Your task to perform on an android device: Search for a new mascara Image 0: 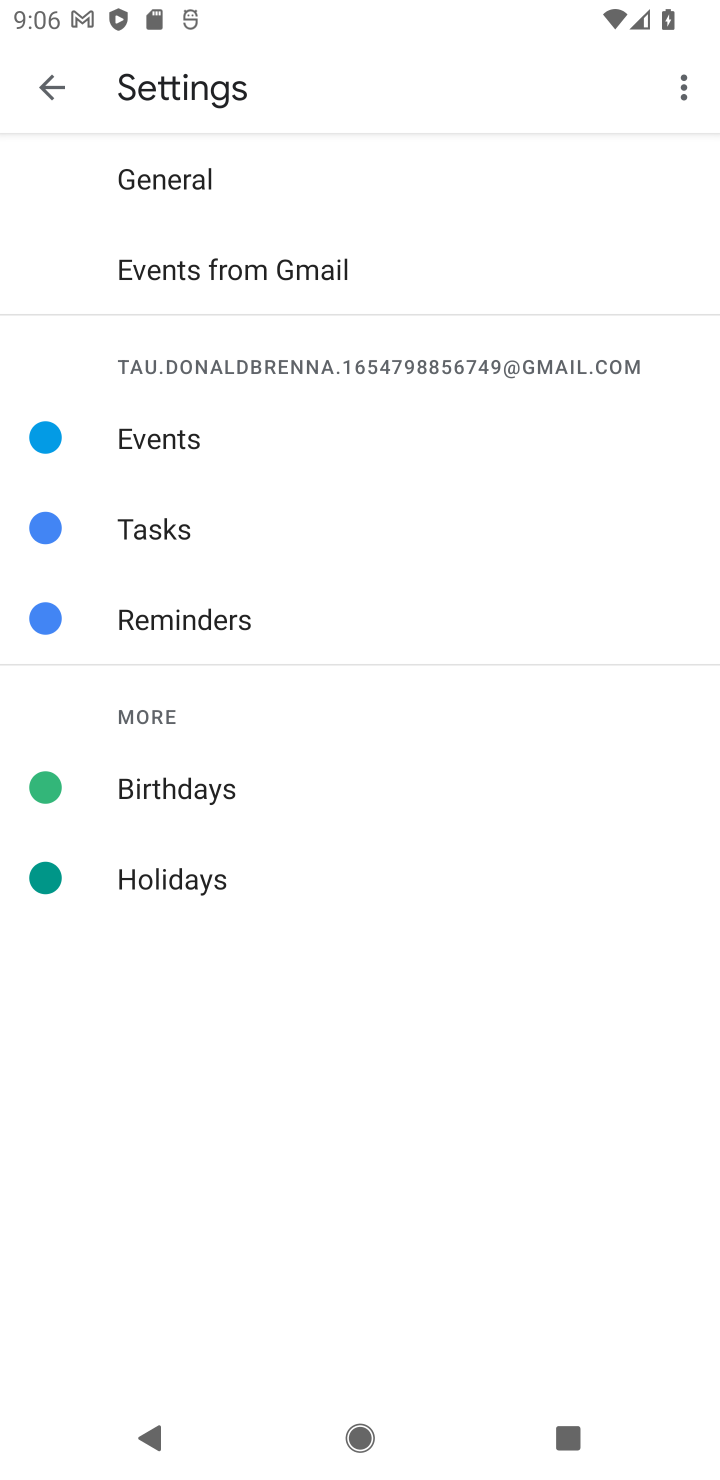
Step 0: press home button
Your task to perform on an android device: Search for a new mascara Image 1: 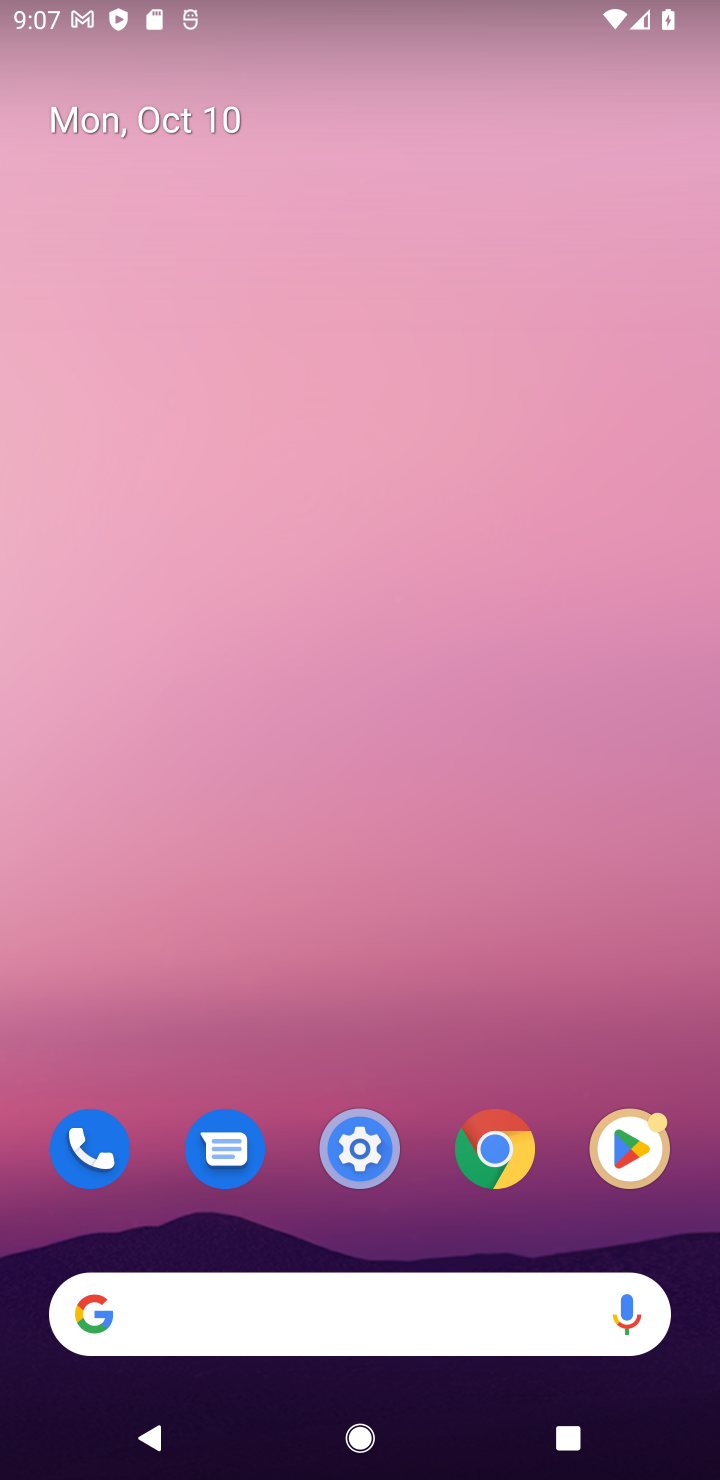
Step 1: click (302, 1331)
Your task to perform on an android device: Search for a new mascara Image 2: 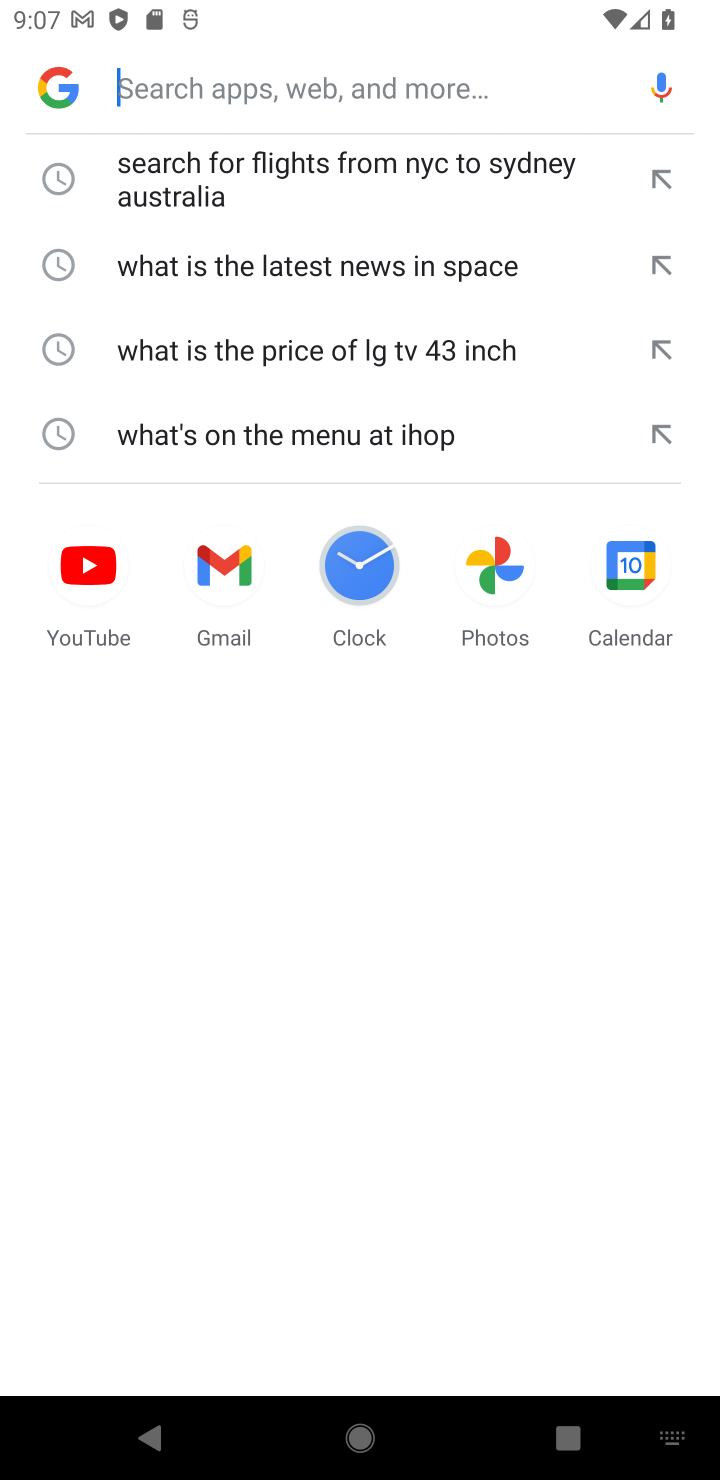
Step 2: type "Search for a new mascara"
Your task to perform on an android device: Search for a new mascara Image 3: 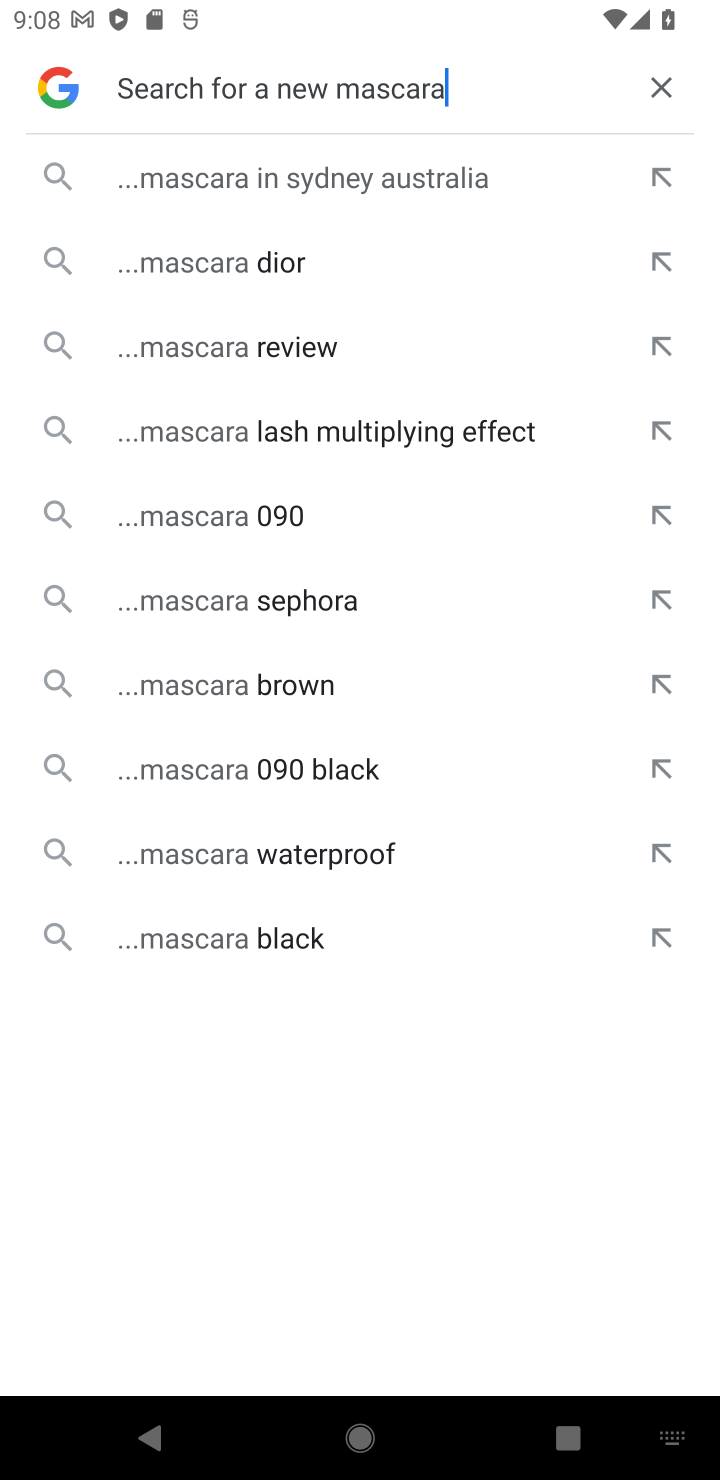
Step 3: click (483, 181)
Your task to perform on an android device: Search for a new mascara Image 4: 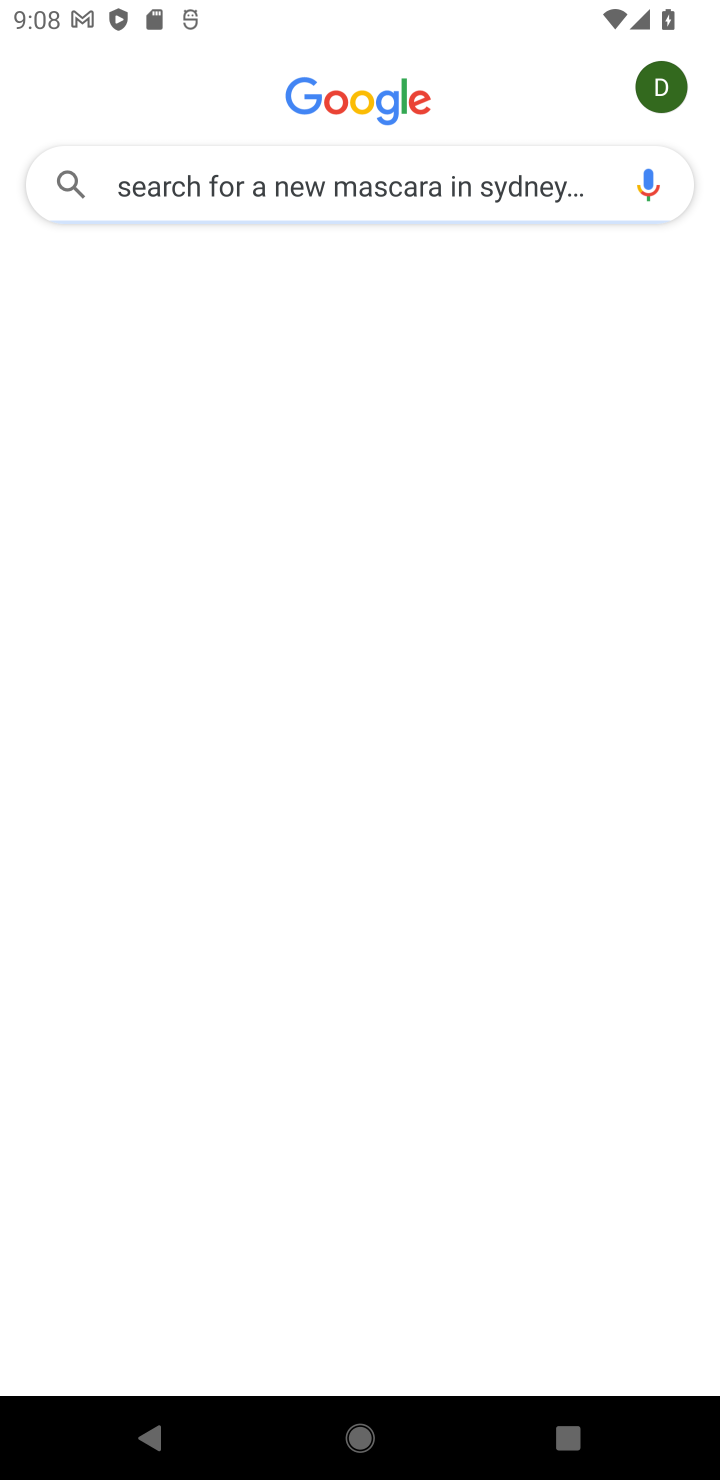
Step 4: task complete